Your task to perform on an android device: clear all cookies in the chrome app Image 0: 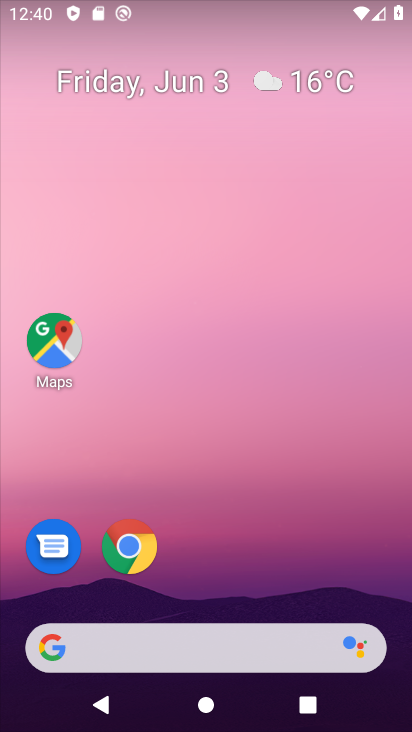
Step 0: click (108, 549)
Your task to perform on an android device: clear all cookies in the chrome app Image 1: 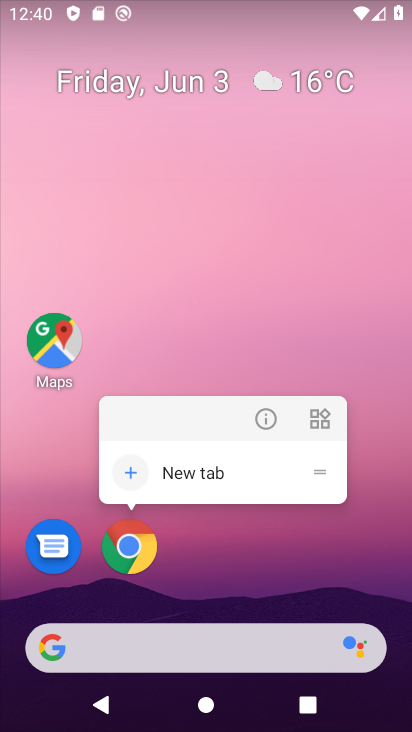
Step 1: click (119, 557)
Your task to perform on an android device: clear all cookies in the chrome app Image 2: 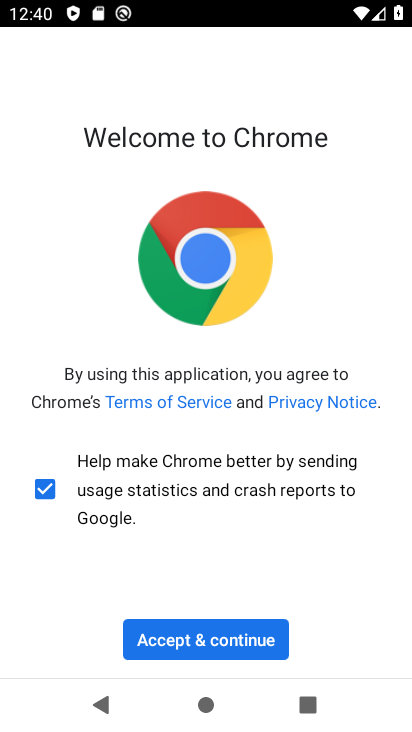
Step 2: click (182, 628)
Your task to perform on an android device: clear all cookies in the chrome app Image 3: 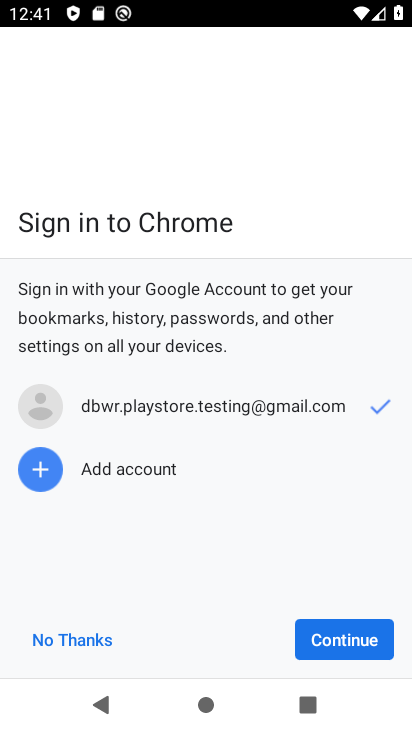
Step 3: click (351, 648)
Your task to perform on an android device: clear all cookies in the chrome app Image 4: 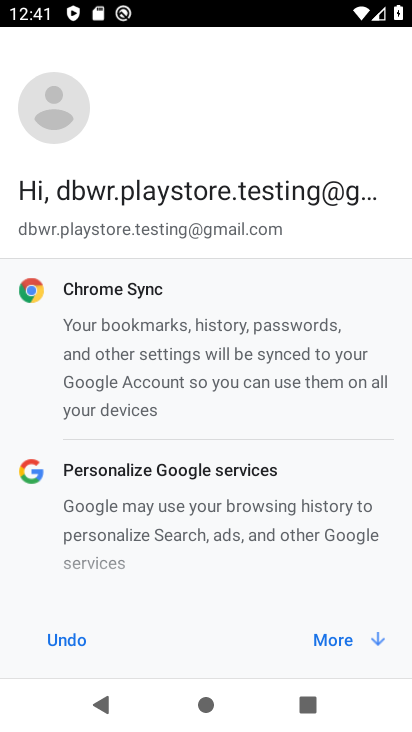
Step 4: click (341, 651)
Your task to perform on an android device: clear all cookies in the chrome app Image 5: 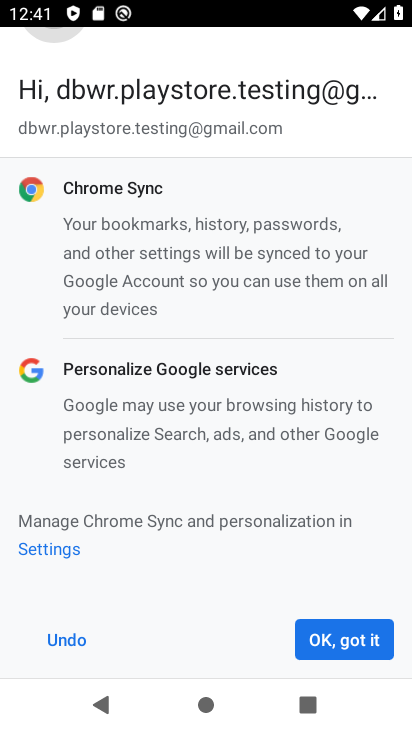
Step 5: click (341, 651)
Your task to perform on an android device: clear all cookies in the chrome app Image 6: 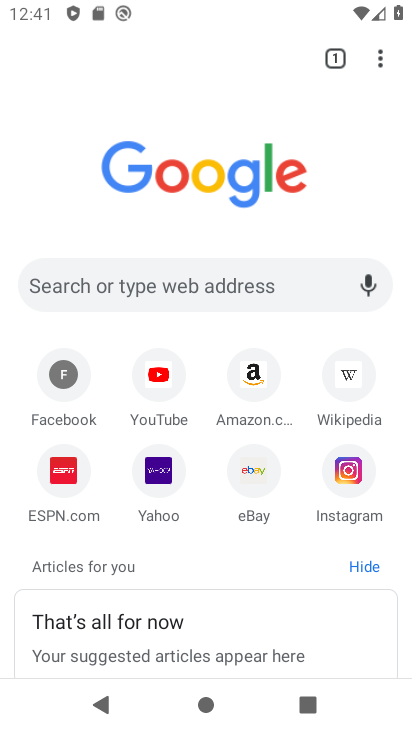
Step 6: drag from (390, 56) to (229, 497)
Your task to perform on an android device: clear all cookies in the chrome app Image 7: 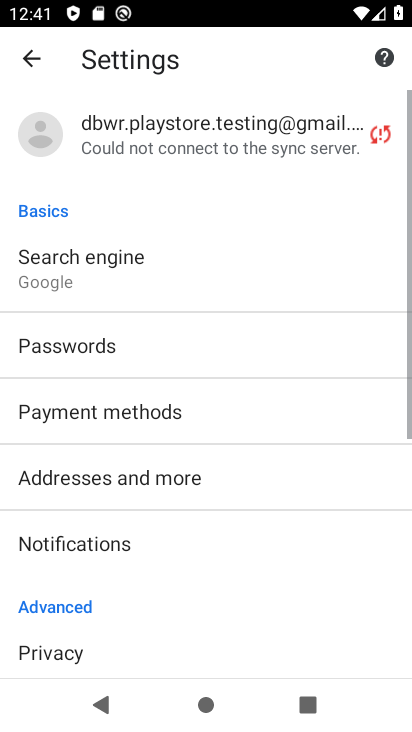
Step 7: drag from (119, 628) to (165, 379)
Your task to perform on an android device: clear all cookies in the chrome app Image 8: 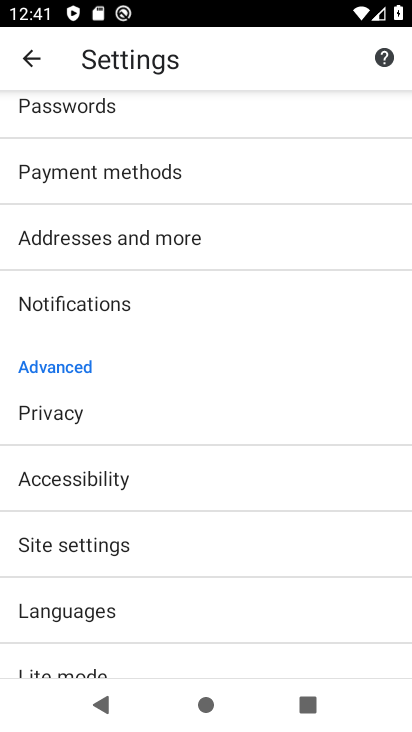
Step 8: click (110, 429)
Your task to perform on an android device: clear all cookies in the chrome app Image 9: 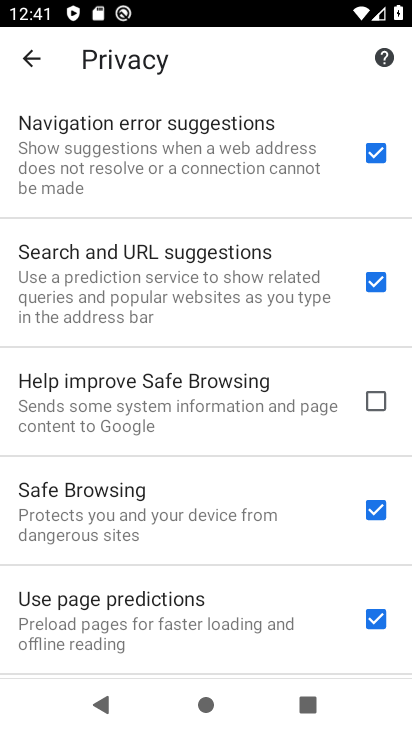
Step 9: drag from (123, 587) to (224, 145)
Your task to perform on an android device: clear all cookies in the chrome app Image 10: 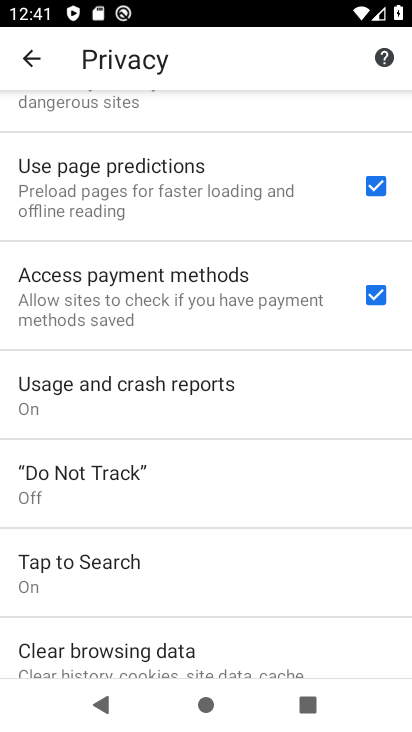
Step 10: drag from (164, 542) to (256, 104)
Your task to perform on an android device: clear all cookies in the chrome app Image 11: 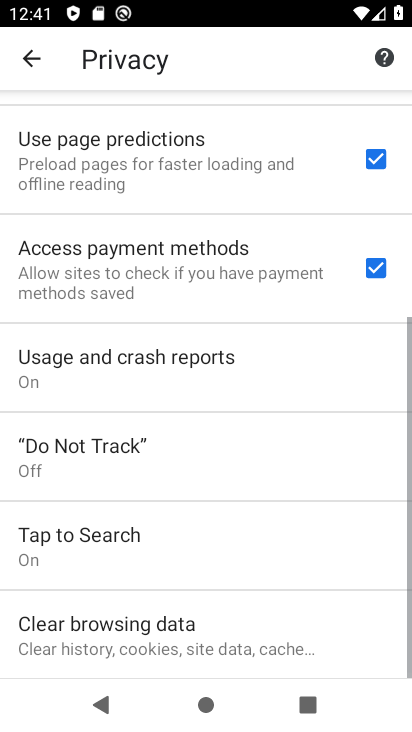
Step 11: click (154, 609)
Your task to perform on an android device: clear all cookies in the chrome app Image 12: 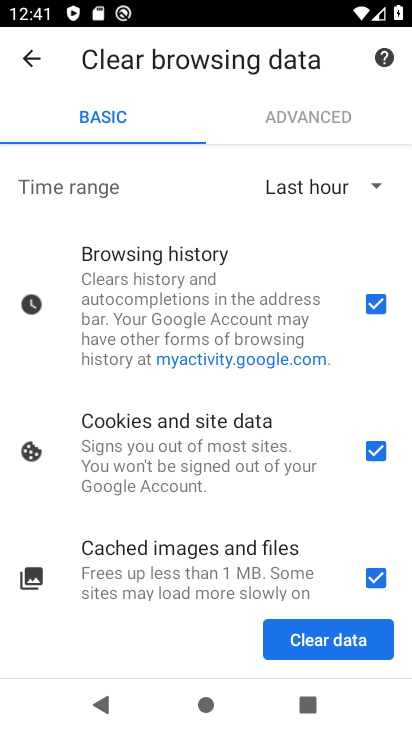
Step 12: click (367, 573)
Your task to perform on an android device: clear all cookies in the chrome app Image 13: 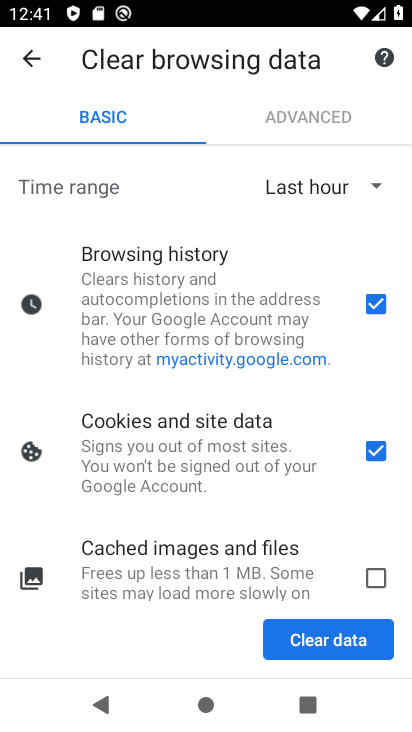
Step 13: click (386, 319)
Your task to perform on an android device: clear all cookies in the chrome app Image 14: 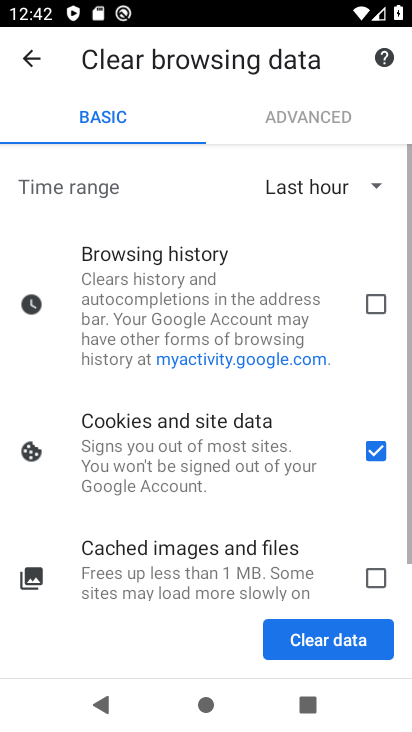
Step 14: click (331, 643)
Your task to perform on an android device: clear all cookies in the chrome app Image 15: 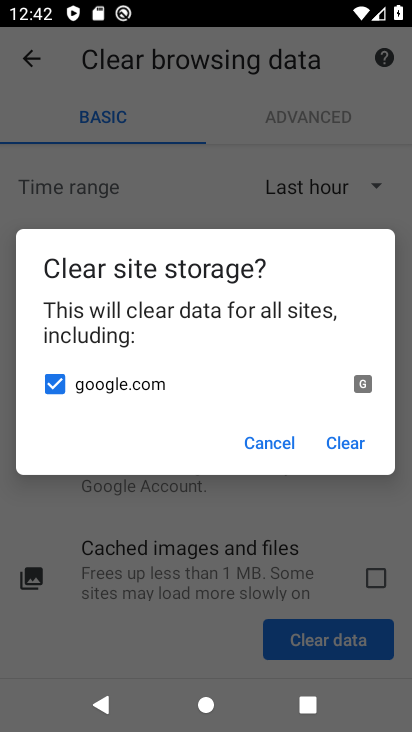
Step 15: click (353, 431)
Your task to perform on an android device: clear all cookies in the chrome app Image 16: 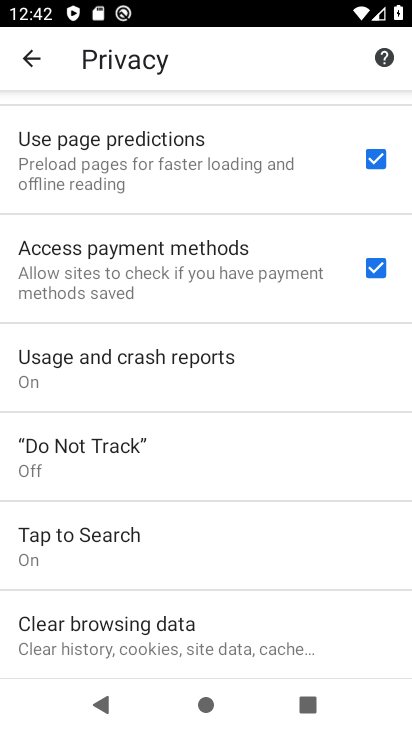
Step 16: task complete